Your task to perform on an android device: check battery use Image 0: 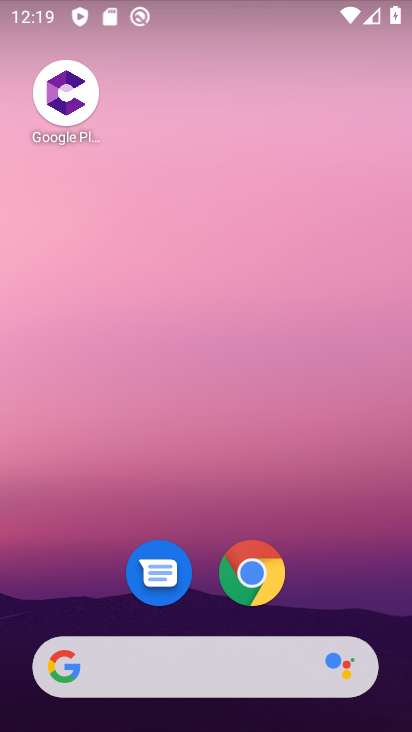
Step 0: drag from (217, 622) to (200, 108)
Your task to perform on an android device: check battery use Image 1: 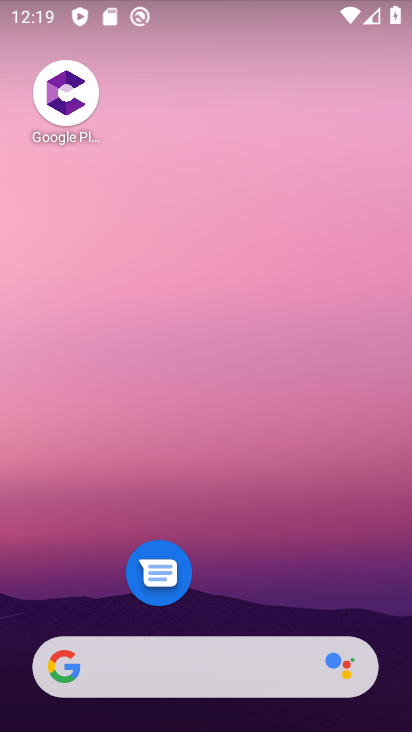
Step 1: drag from (220, 633) to (322, 130)
Your task to perform on an android device: check battery use Image 2: 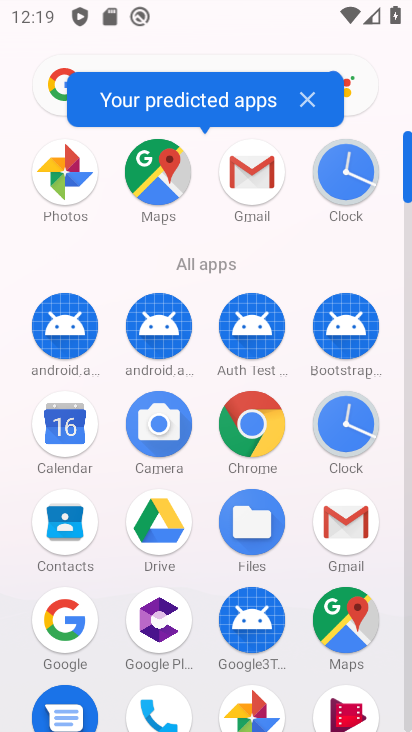
Step 2: drag from (169, 343) to (124, 21)
Your task to perform on an android device: check battery use Image 3: 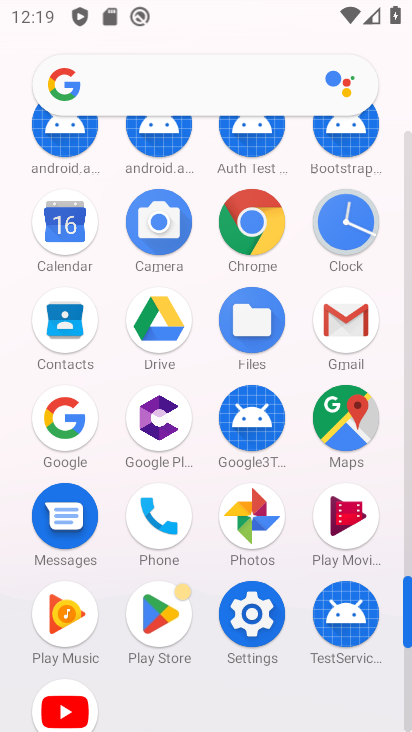
Step 3: click (255, 630)
Your task to perform on an android device: check battery use Image 4: 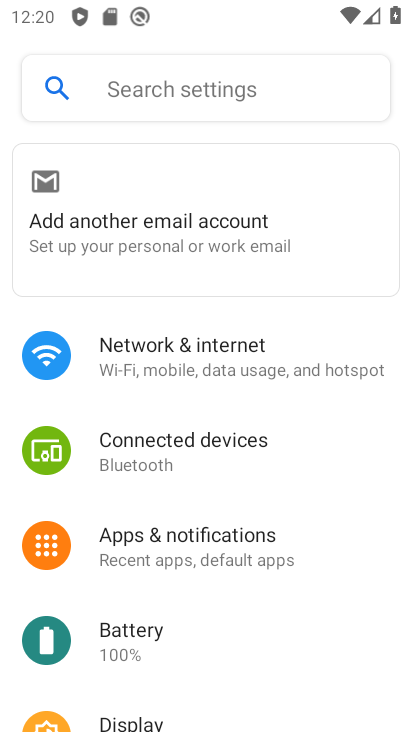
Step 4: click (149, 646)
Your task to perform on an android device: check battery use Image 5: 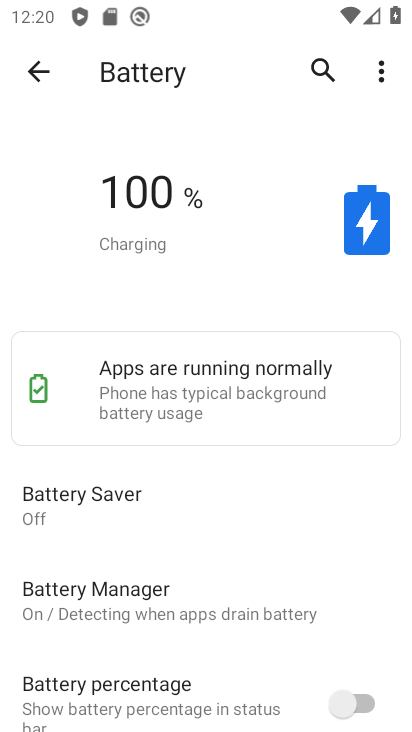
Step 5: click (148, 491)
Your task to perform on an android device: check battery use Image 6: 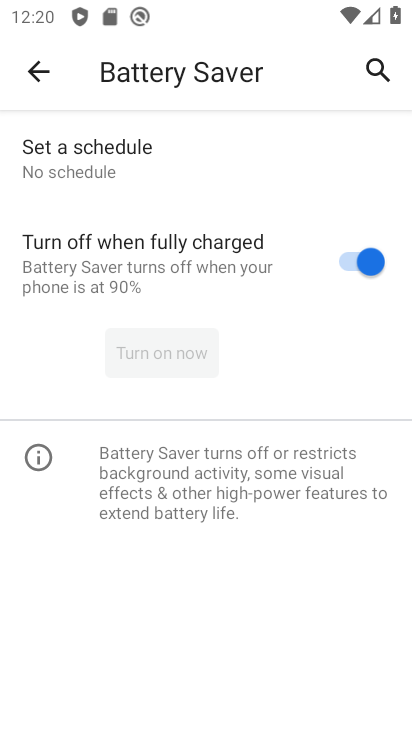
Step 6: task complete